Your task to perform on an android device: What's the weather? Image 0: 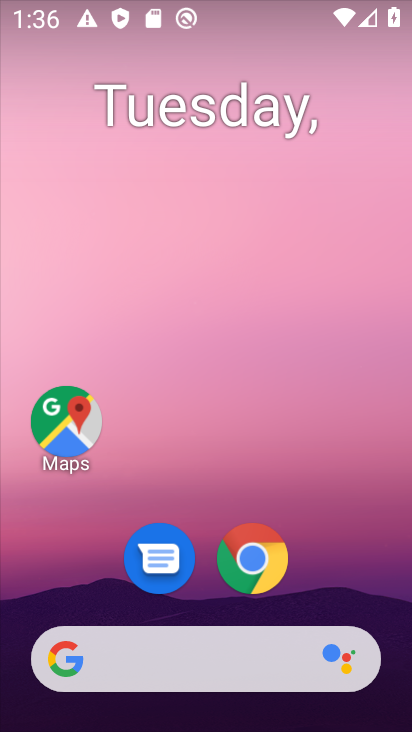
Step 0: drag from (212, 503) to (177, 132)
Your task to perform on an android device: What's the weather? Image 1: 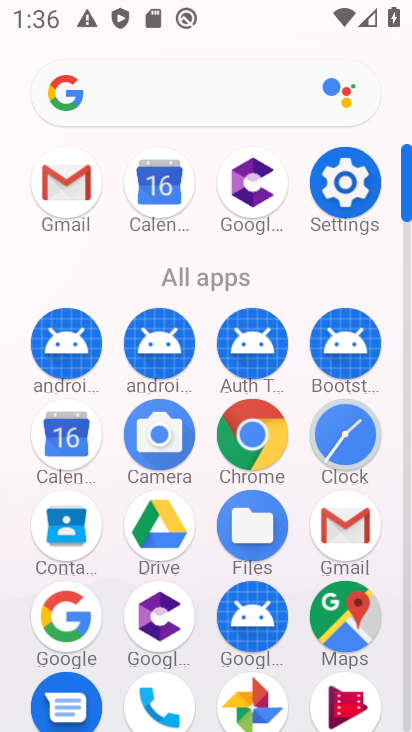
Step 1: click (76, 601)
Your task to perform on an android device: What's the weather? Image 2: 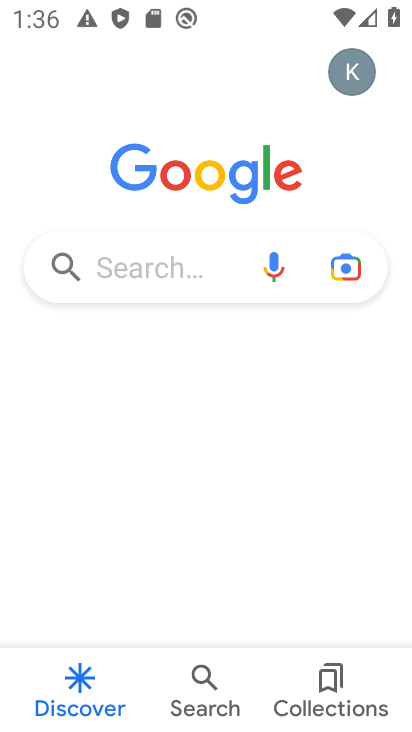
Step 2: click (148, 268)
Your task to perform on an android device: What's the weather? Image 3: 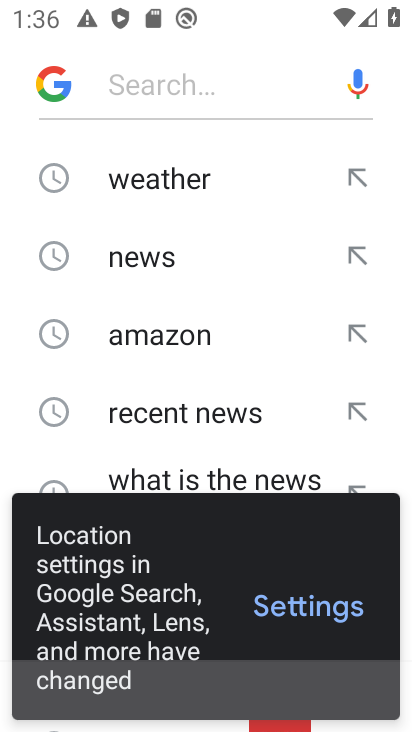
Step 3: click (166, 169)
Your task to perform on an android device: What's the weather? Image 4: 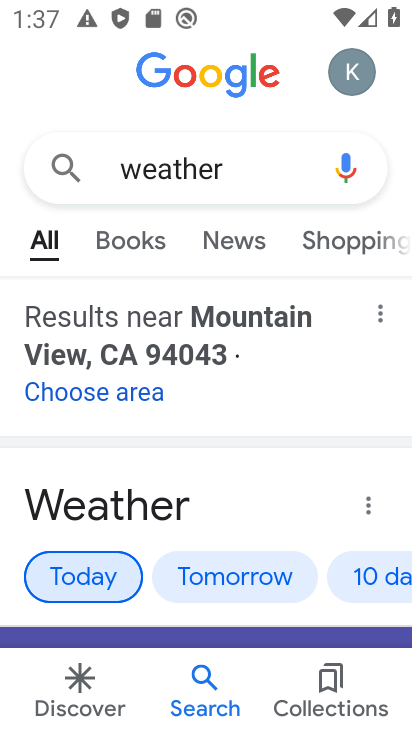
Step 4: task complete